Your task to perform on an android device: check battery use Image 0: 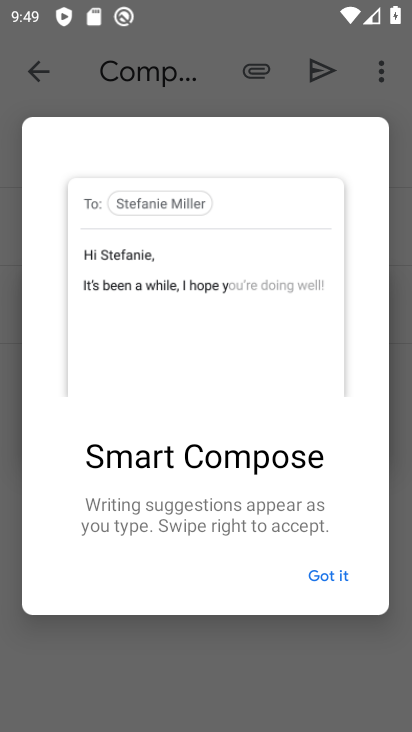
Step 0: press home button
Your task to perform on an android device: check battery use Image 1: 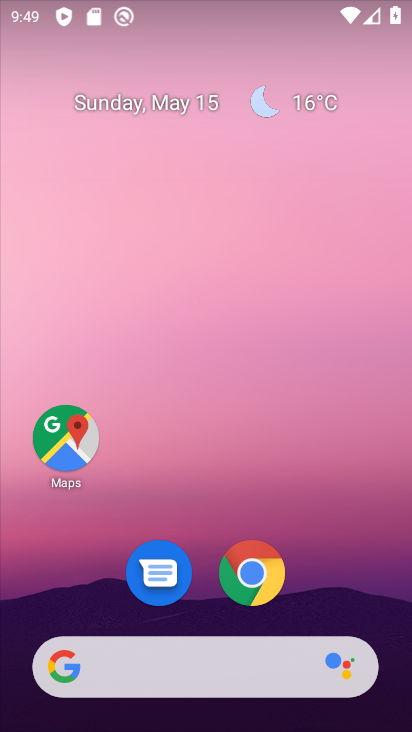
Step 1: drag from (318, 573) to (320, 113)
Your task to perform on an android device: check battery use Image 2: 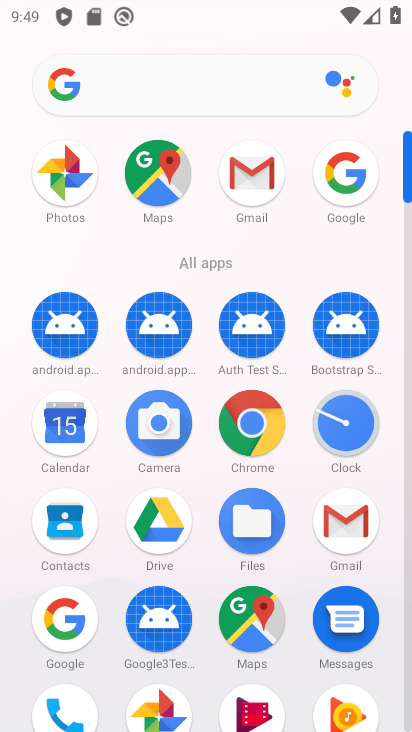
Step 2: drag from (300, 538) to (328, 355)
Your task to perform on an android device: check battery use Image 3: 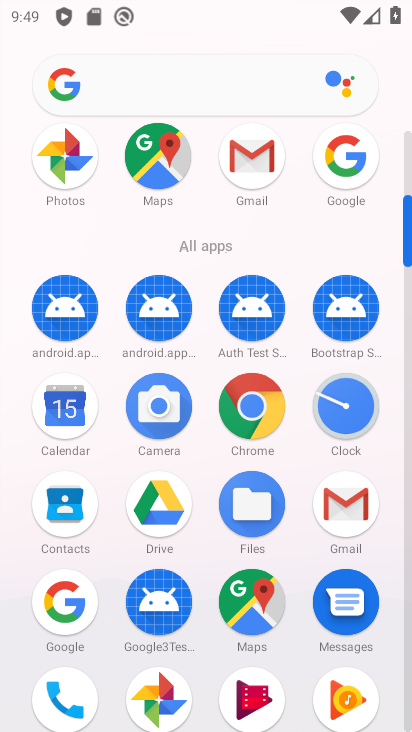
Step 3: drag from (274, 517) to (255, 684)
Your task to perform on an android device: check battery use Image 4: 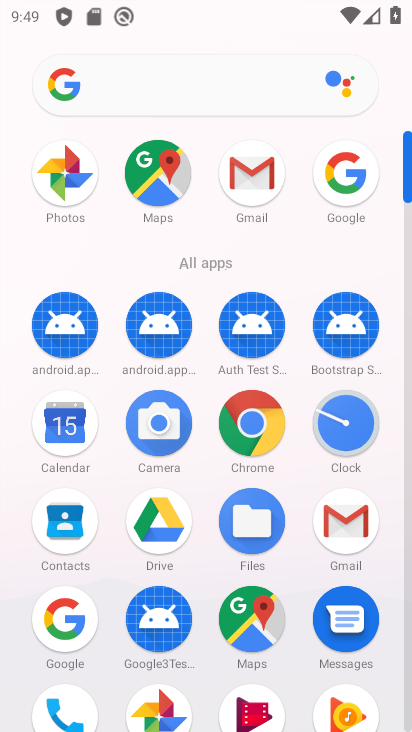
Step 4: drag from (285, 674) to (327, 329)
Your task to perform on an android device: check battery use Image 5: 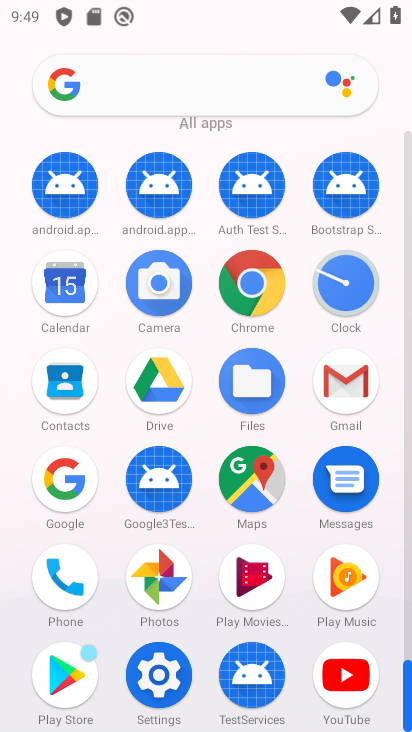
Step 5: click (149, 669)
Your task to perform on an android device: check battery use Image 6: 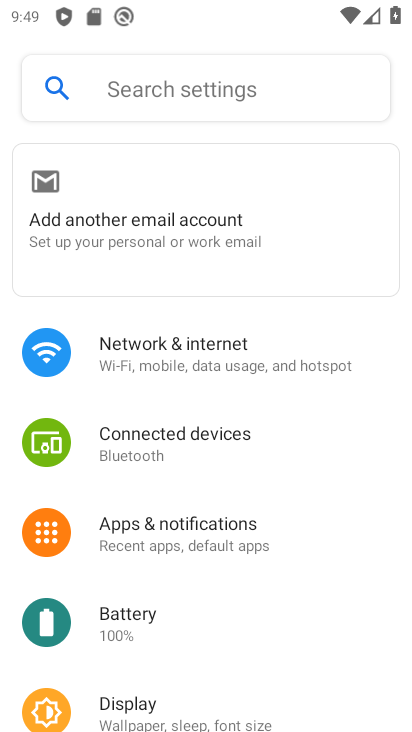
Step 6: click (117, 625)
Your task to perform on an android device: check battery use Image 7: 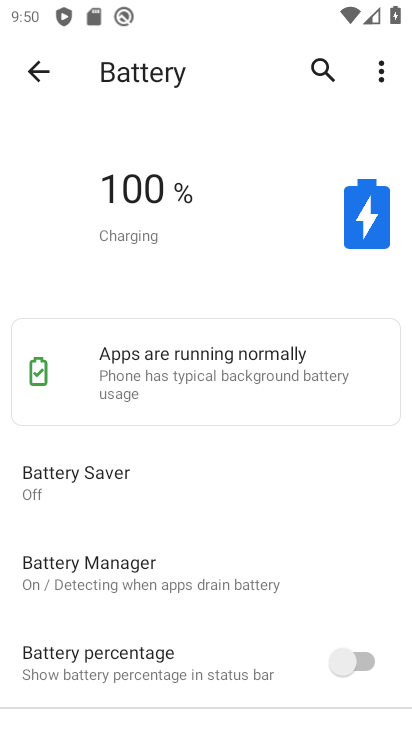
Step 7: task complete